Your task to perform on an android device: Turn on the flashlight Image 0: 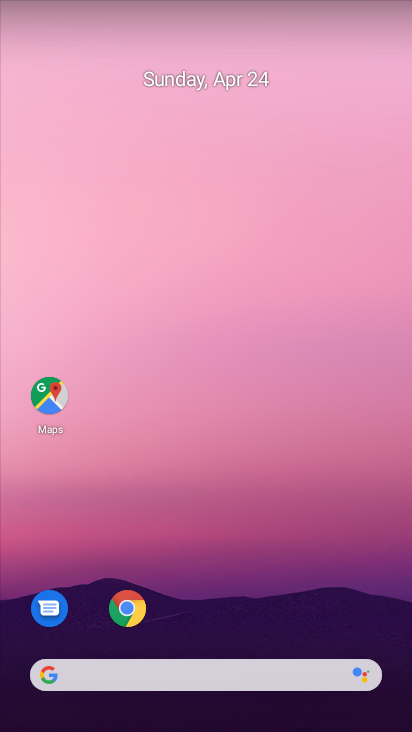
Step 0: drag from (273, 477) to (262, 121)
Your task to perform on an android device: Turn on the flashlight Image 1: 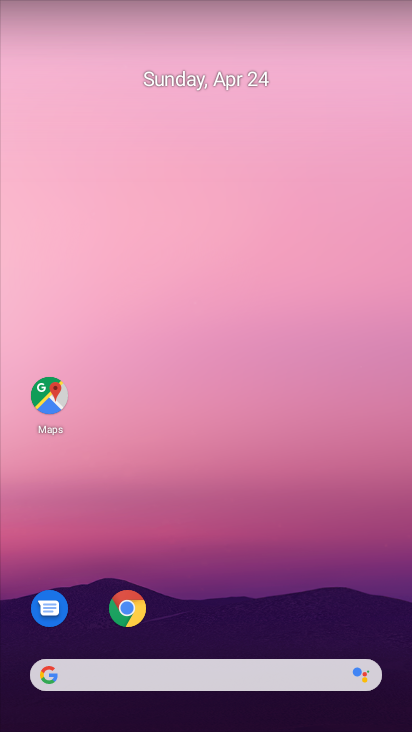
Step 1: drag from (263, 597) to (285, 60)
Your task to perform on an android device: Turn on the flashlight Image 2: 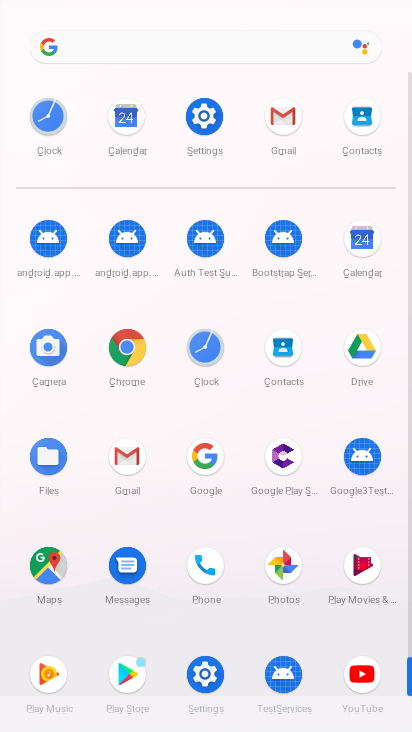
Step 2: click (201, 122)
Your task to perform on an android device: Turn on the flashlight Image 3: 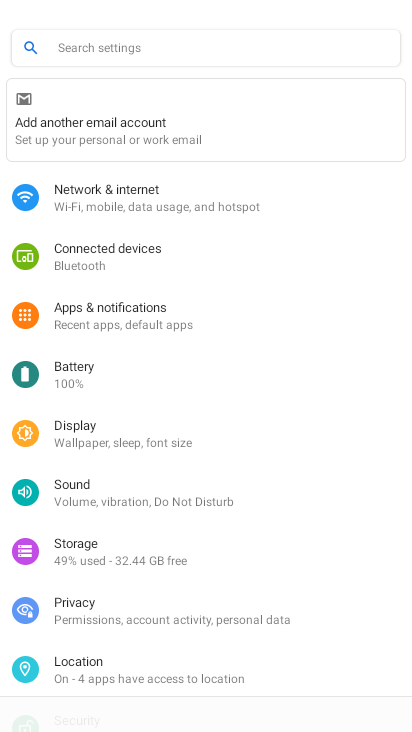
Step 3: click (206, 40)
Your task to perform on an android device: Turn on the flashlight Image 4: 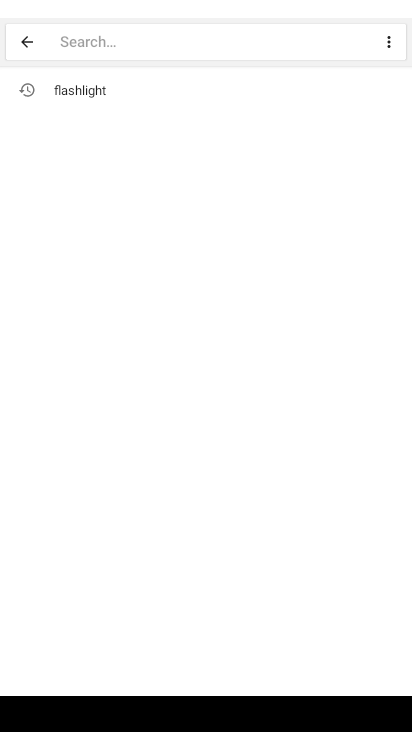
Step 4: click (98, 88)
Your task to perform on an android device: Turn on the flashlight Image 5: 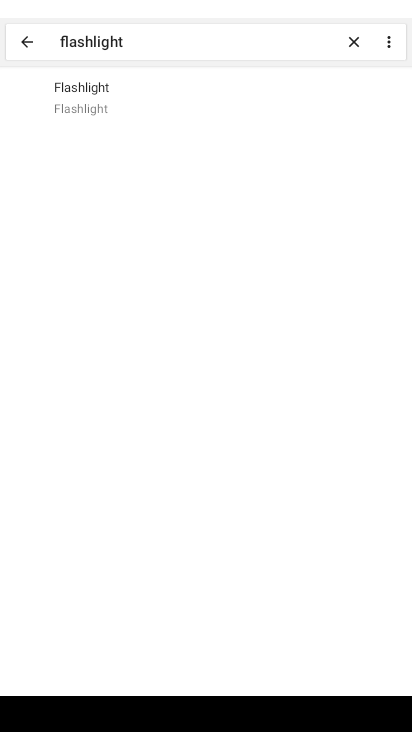
Step 5: click (100, 87)
Your task to perform on an android device: Turn on the flashlight Image 6: 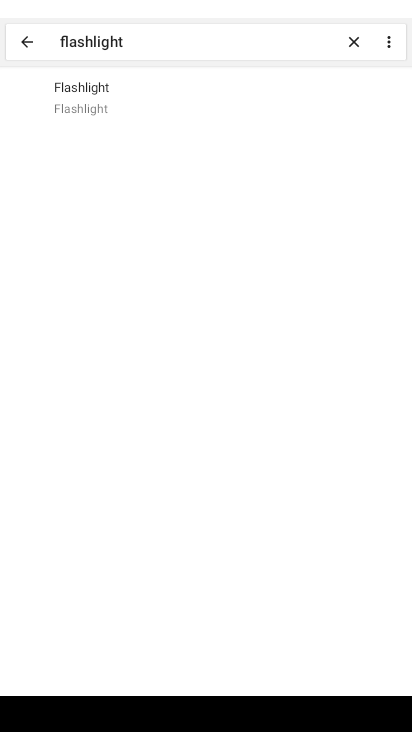
Step 6: task complete